Your task to perform on an android device: When is my next meeting? Image 0: 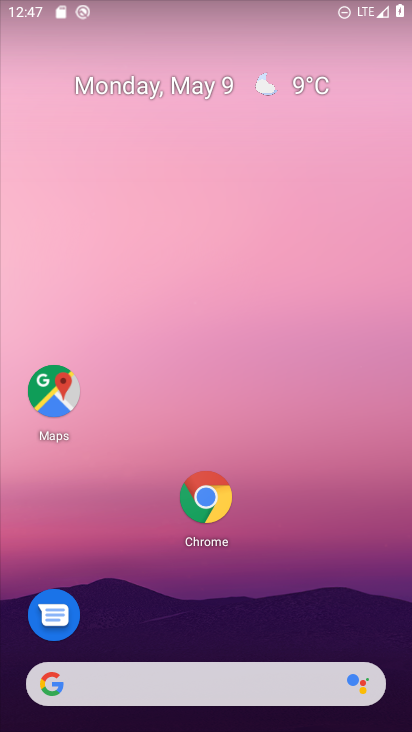
Step 0: drag from (312, 534) to (286, 1)
Your task to perform on an android device: When is my next meeting? Image 1: 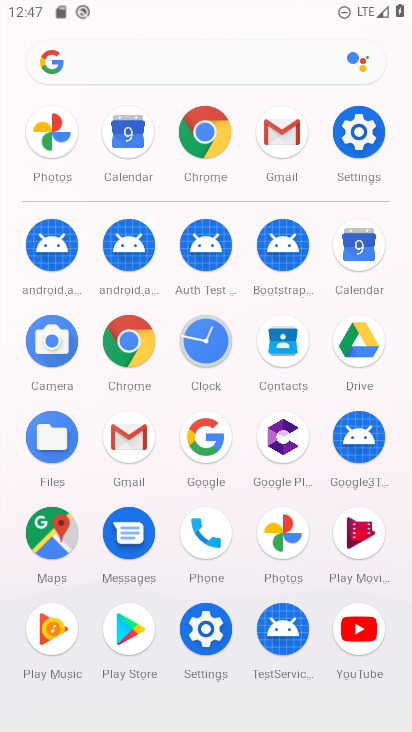
Step 1: click (132, 144)
Your task to perform on an android device: When is my next meeting? Image 2: 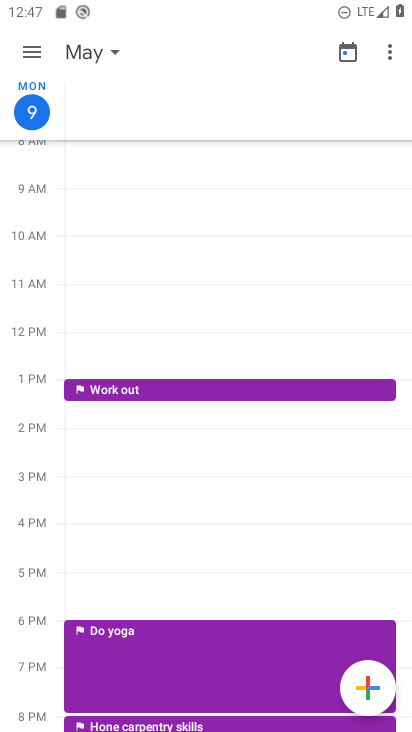
Step 2: task complete